Your task to perform on an android device: Open the map Image 0: 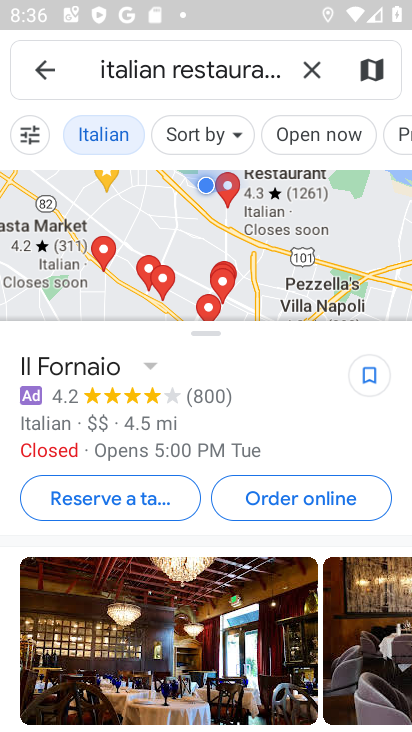
Step 0: task complete